Your task to perform on an android device: change the clock style Image 0: 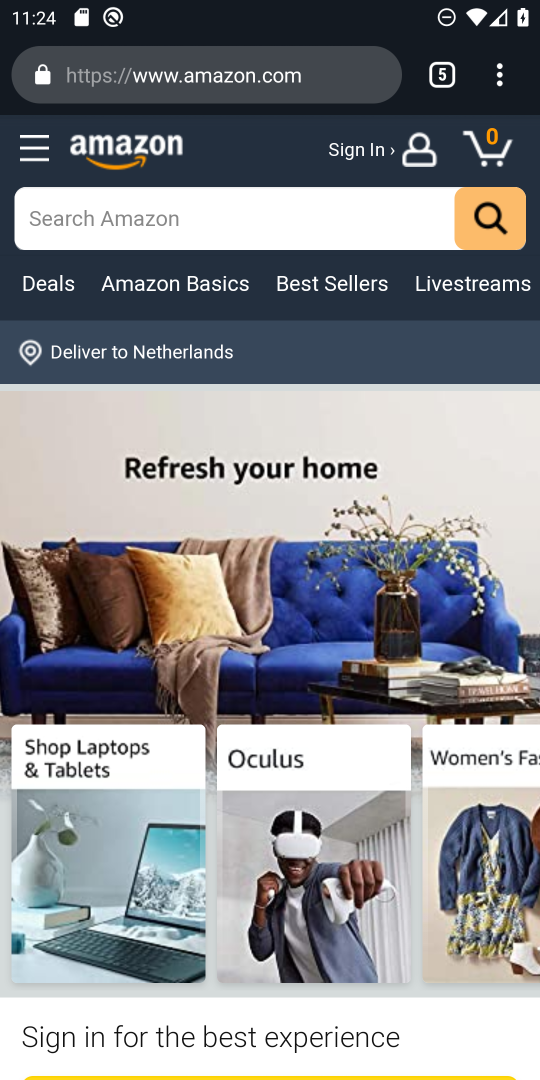
Step 0: press home button
Your task to perform on an android device: change the clock style Image 1: 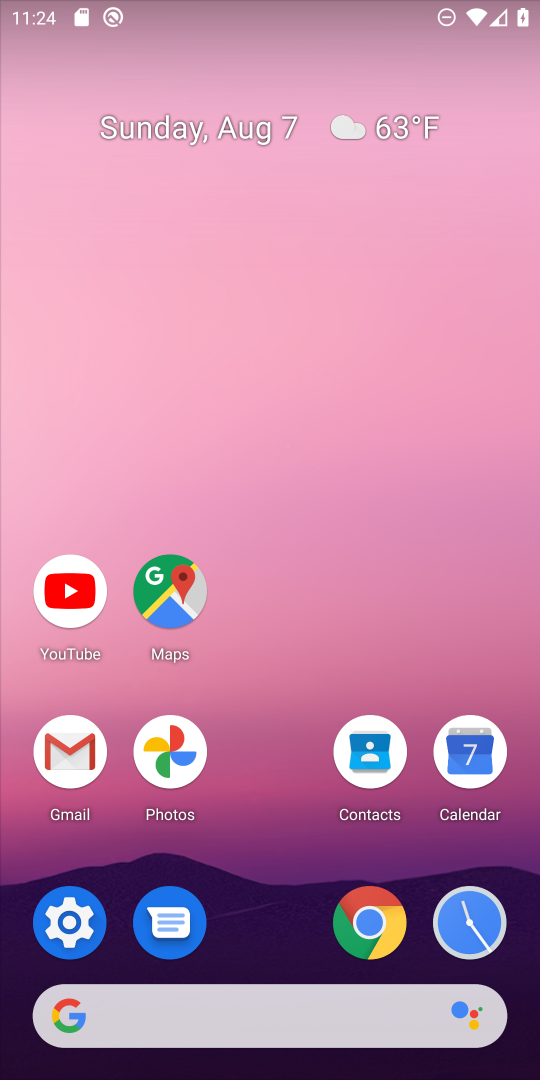
Step 1: click (470, 926)
Your task to perform on an android device: change the clock style Image 2: 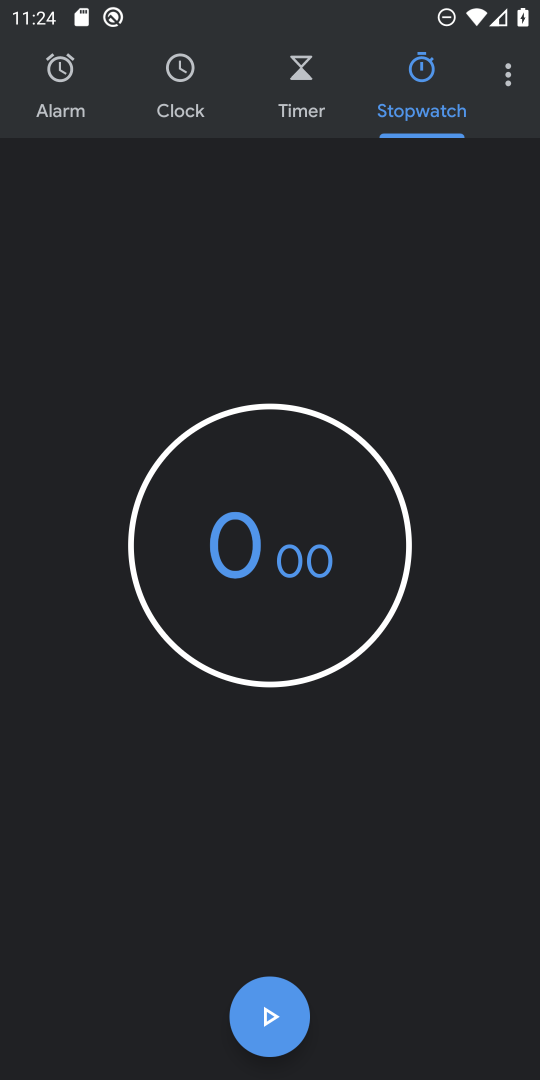
Step 2: click (519, 77)
Your task to perform on an android device: change the clock style Image 3: 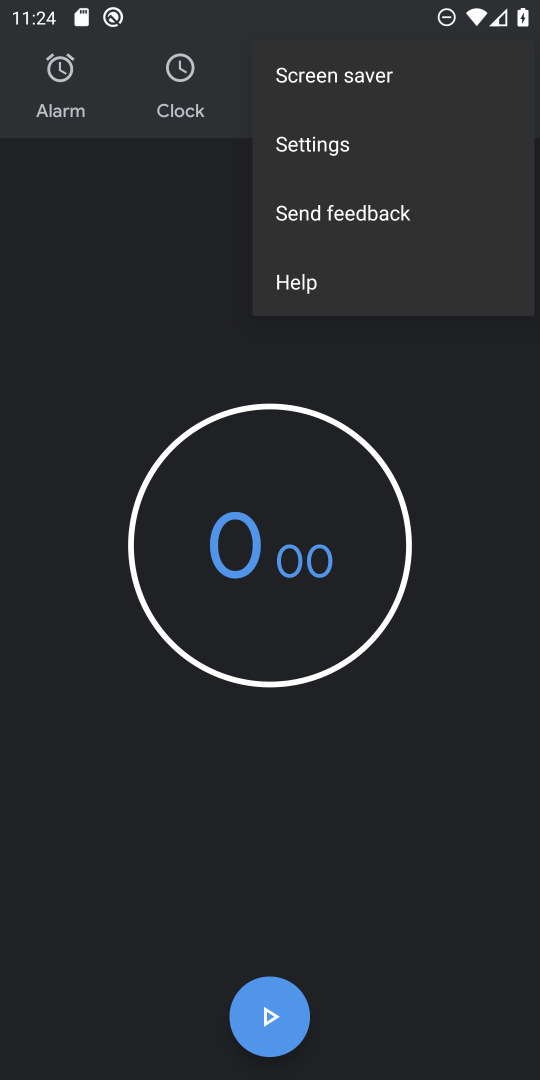
Step 3: click (319, 148)
Your task to perform on an android device: change the clock style Image 4: 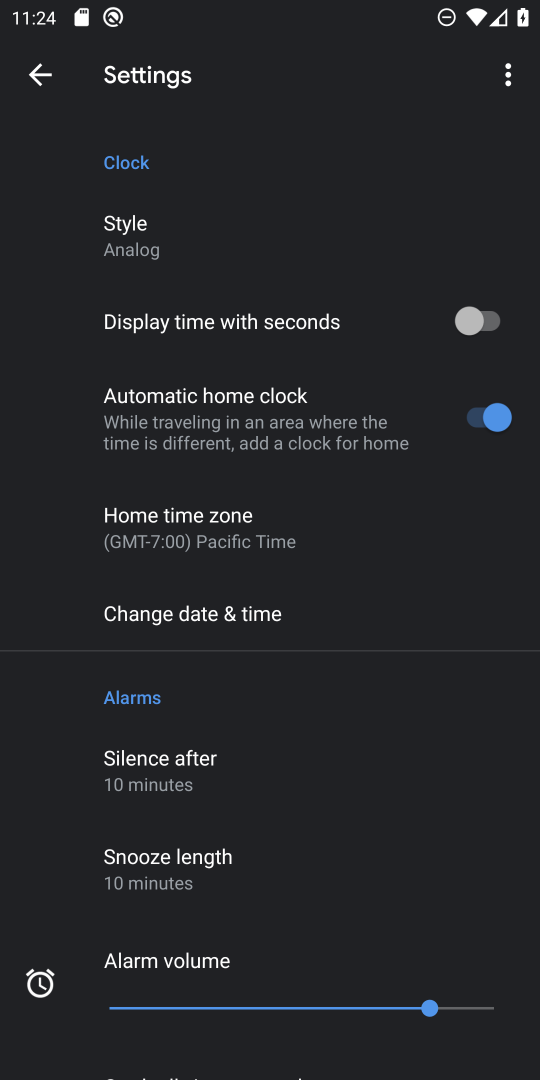
Step 4: click (137, 232)
Your task to perform on an android device: change the clock style Image 5: 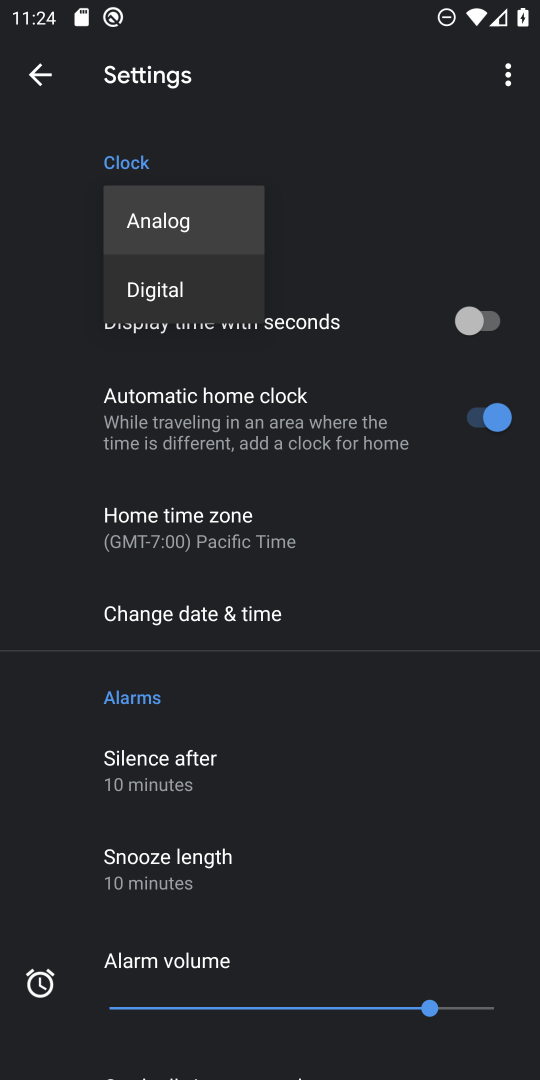
Step 5: click (151, 281)
Your task to perform on an android device: change the clock style Image 6: 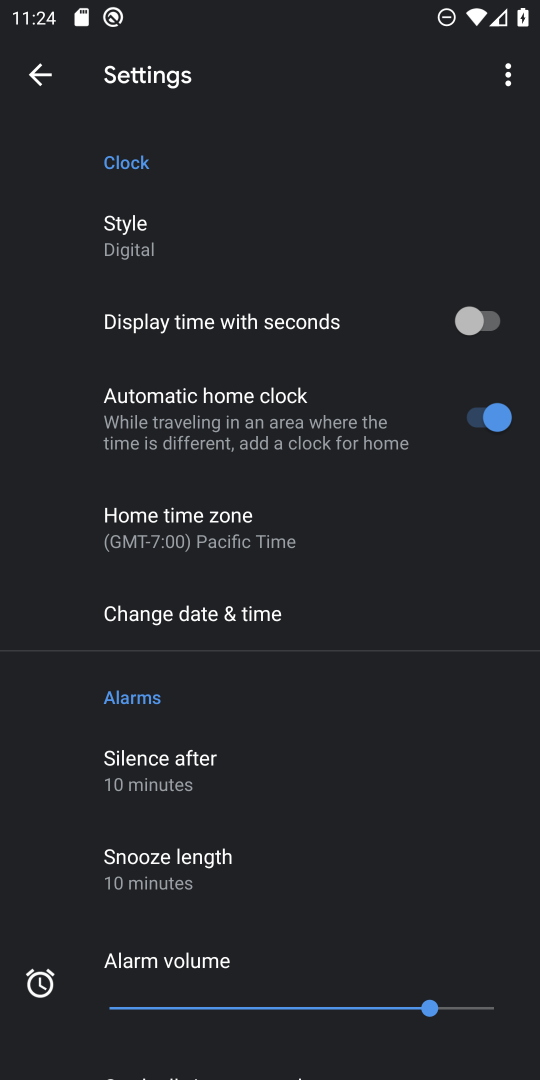
Step 6: task complete